Your task to perform on an android device: Clear all items from cart on bestbuy.com. Image 0: 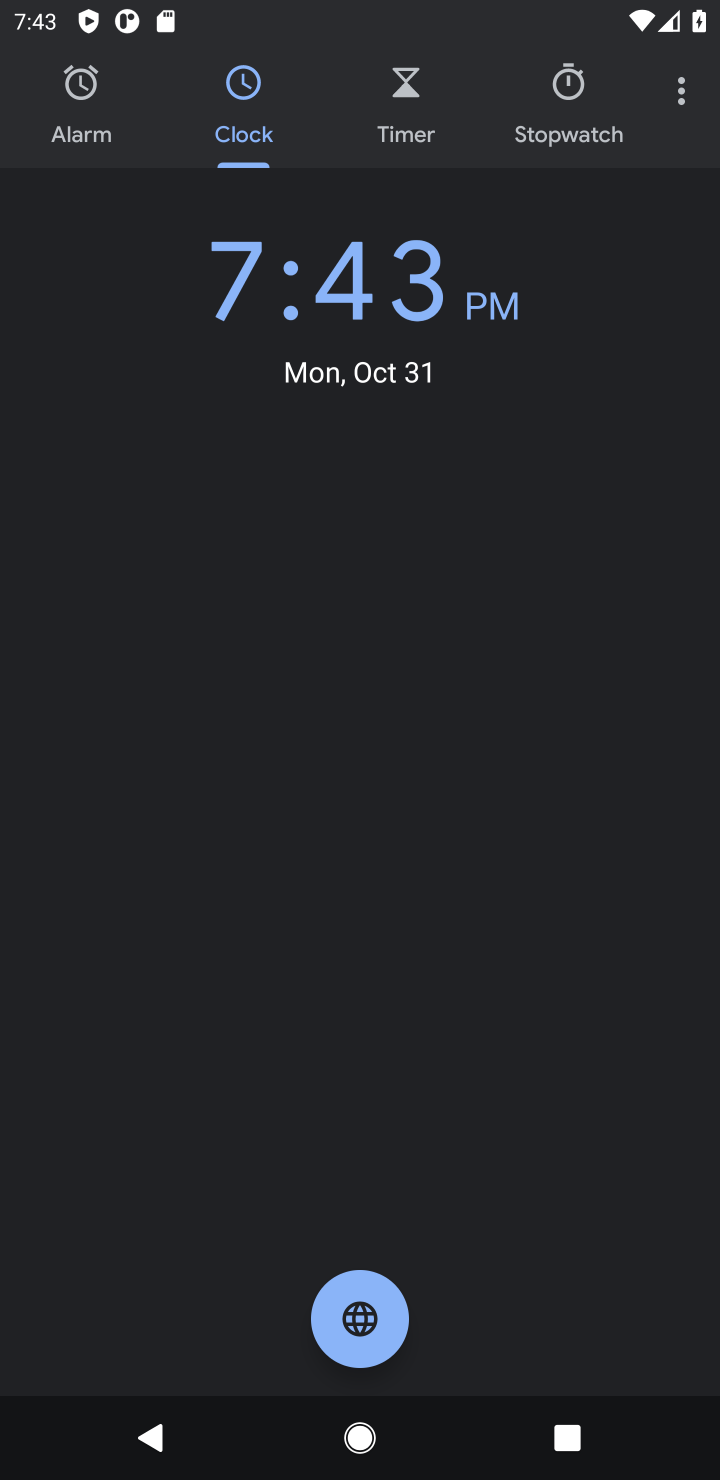
Step 0: press home button
Your task to perform on an android device: Clear all items from cart on bestbuy.com. Image 1: 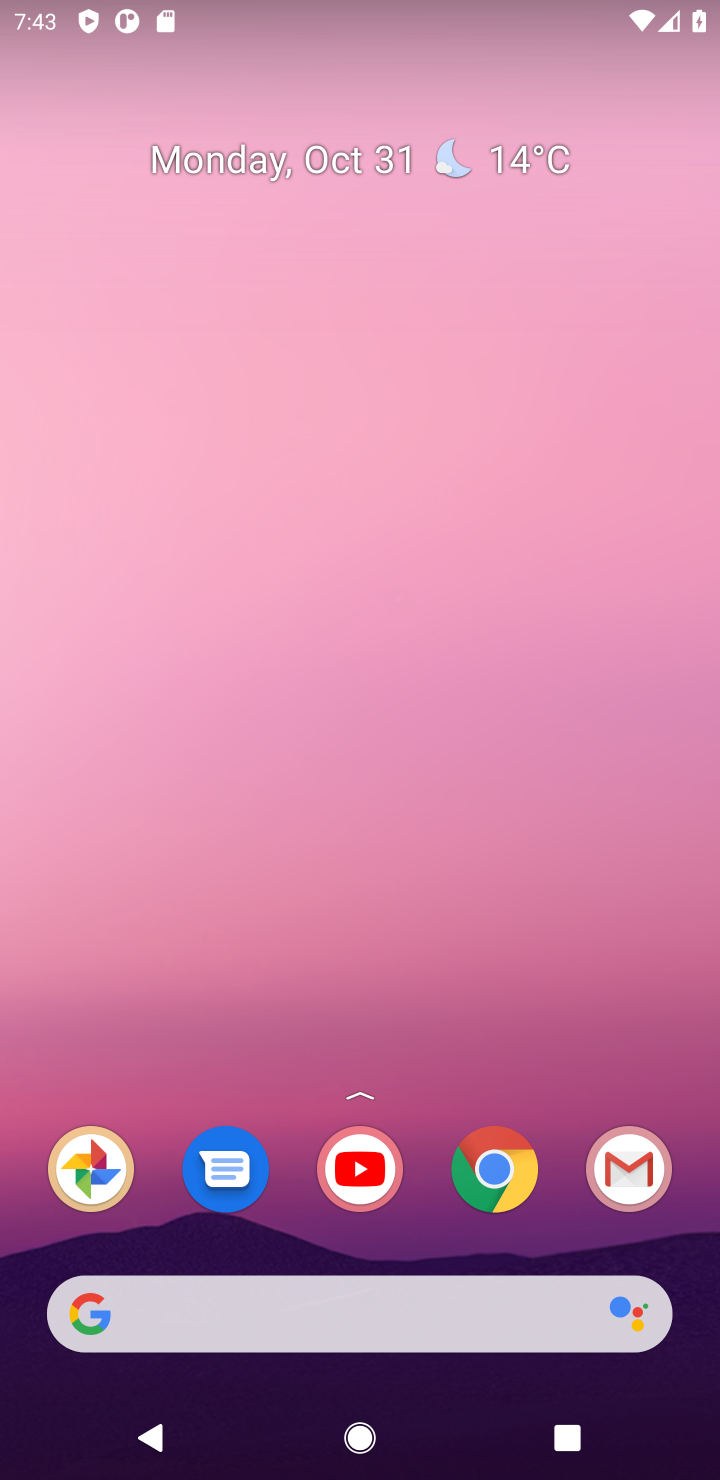
Step 1: drag from (423, 701) to (398, 90)
Your task to perform on an android device: Clear all items from cart on bestbuy.com. Image 2: 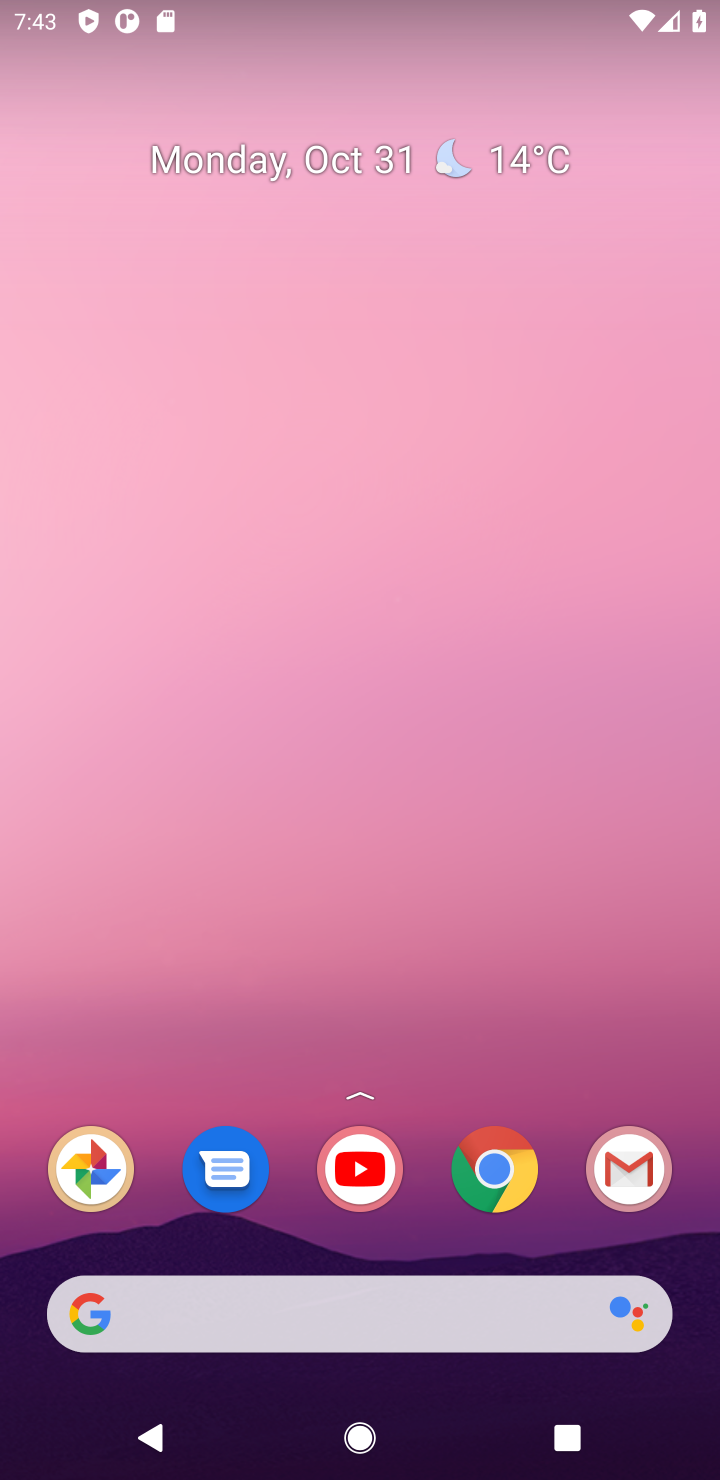
Step 2: drag from (460, 1300) to (375, 47)
Your task to perform on an android device: Clear all items from cart on bestbuy.com. Image 3: 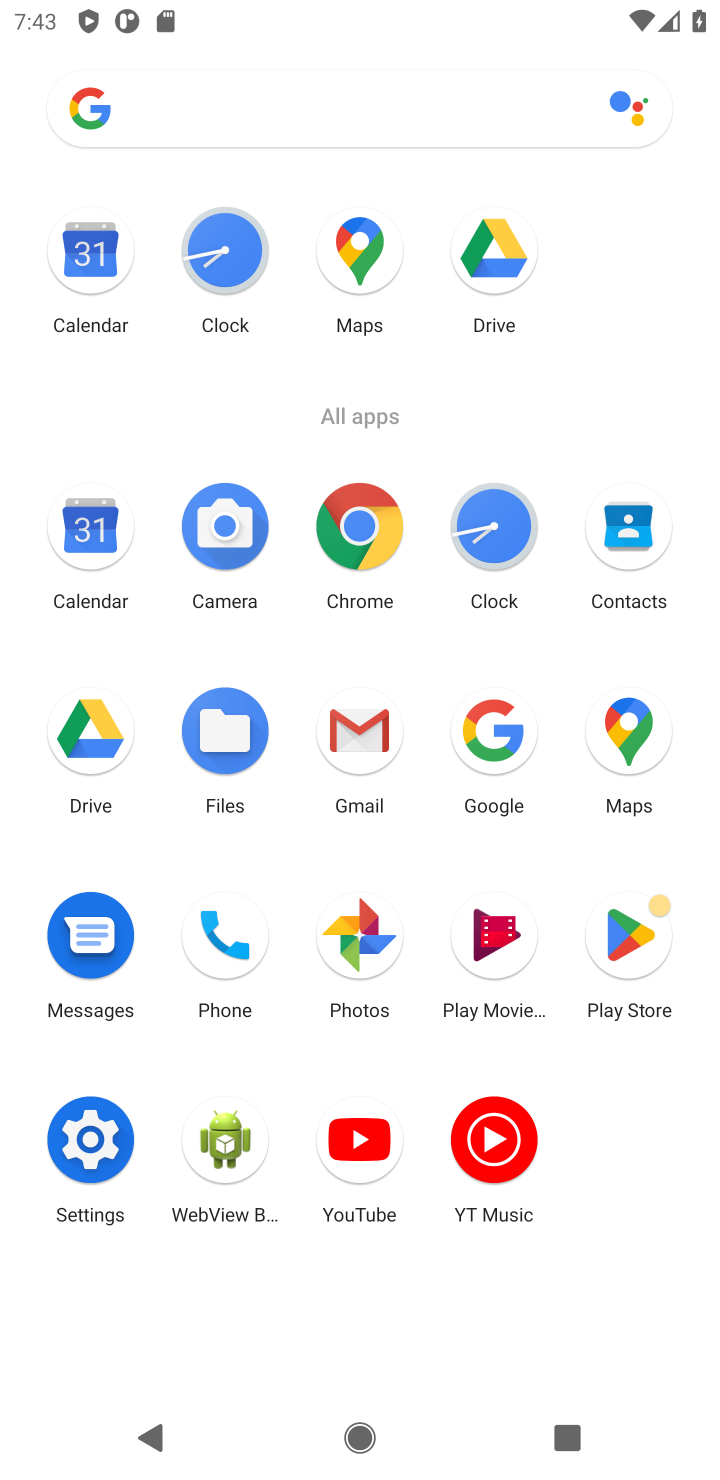
Step 3: click (481, 724)
Your task to perform on an android device: Clear all items from cart on bestbuy.com. Image 4: 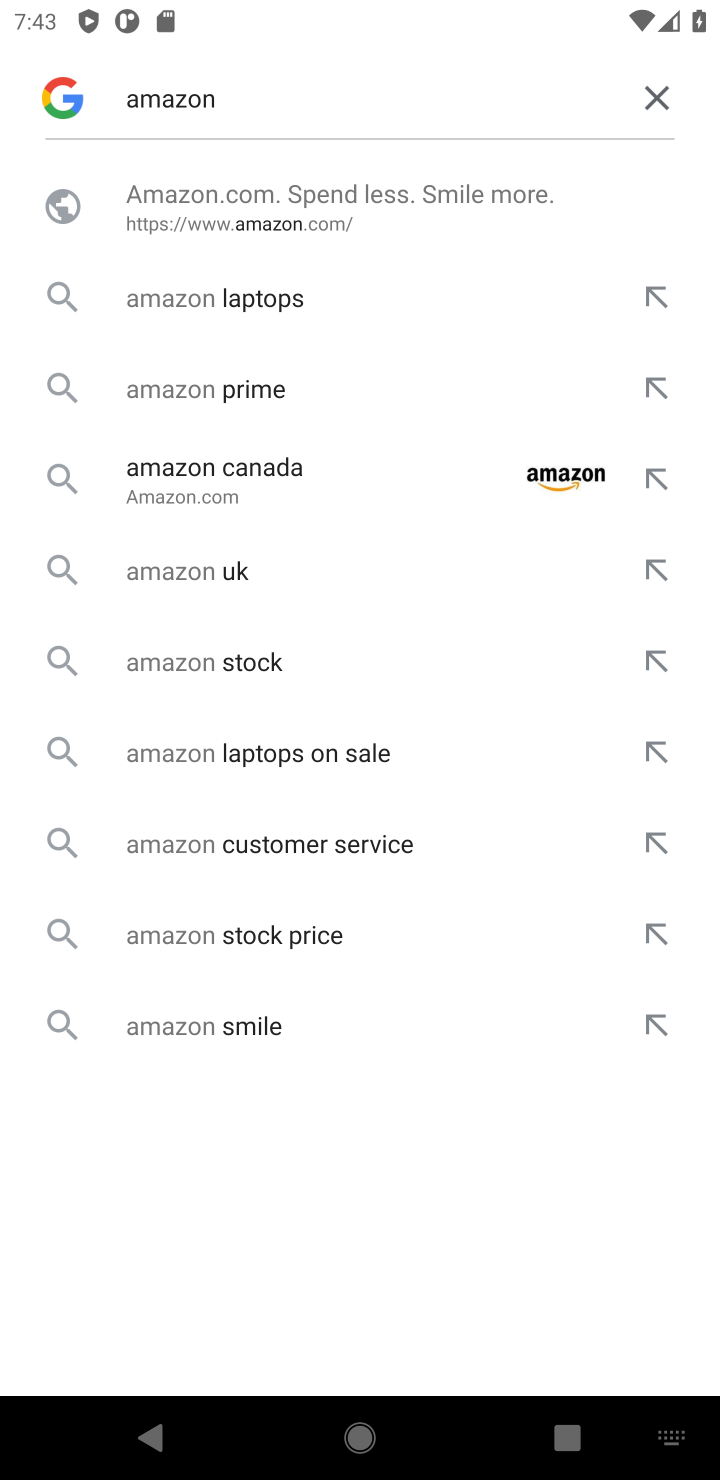
Step 4: click (638, 91)
Your task to perform on an android device: Clear all items from cart on bestbuy.com. Image 5: 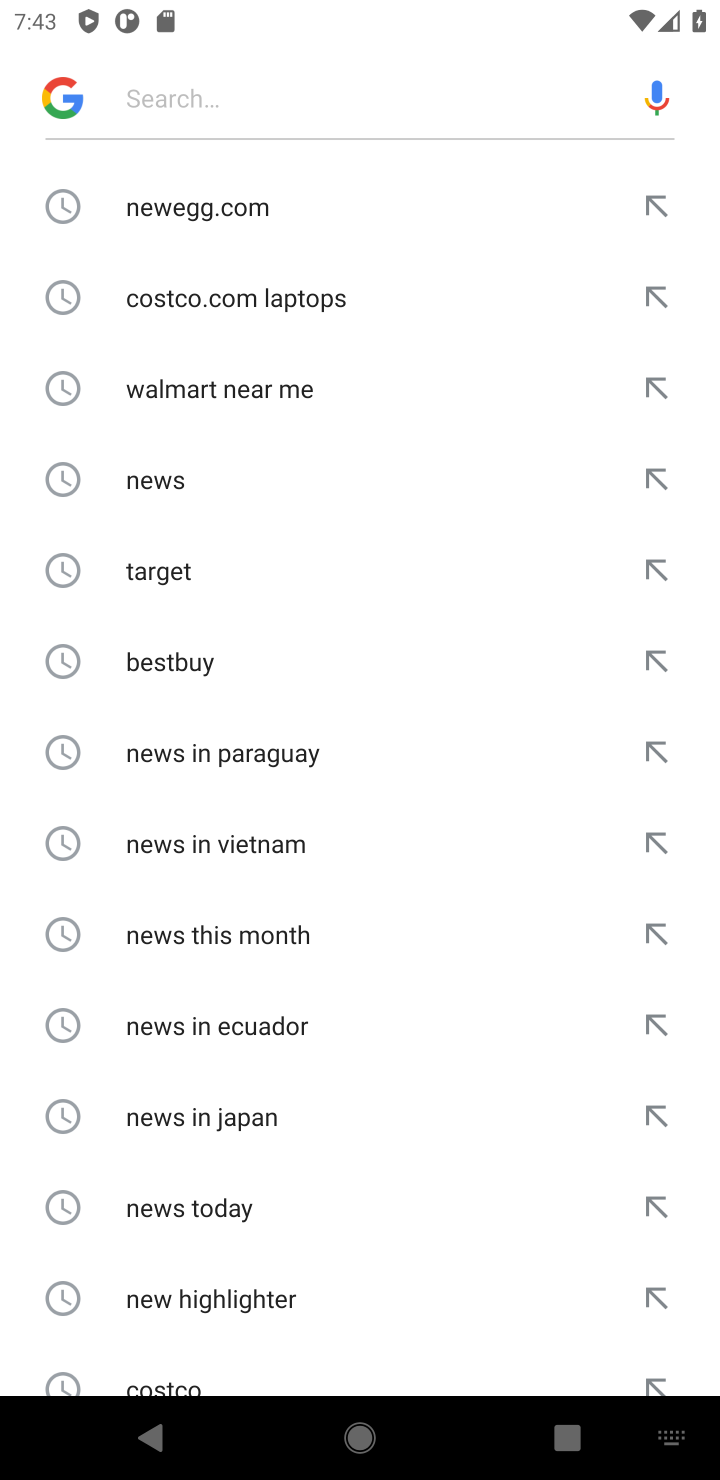
Step 5: click (293, 91)
Your task to perform on an android device: Clear all items from cart on bestbuy.com. Image 6: 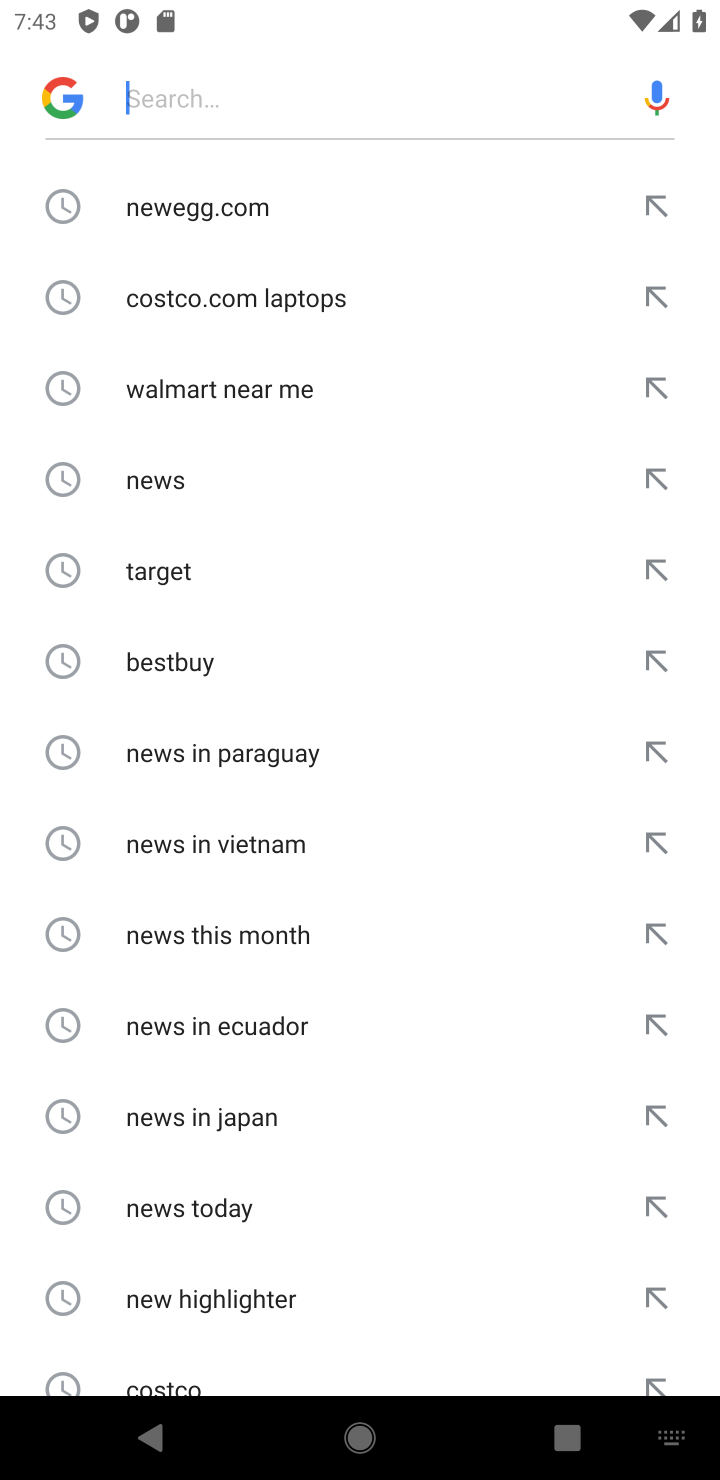
Step 6: type "bestbuy "
Your task to perform on an android device: Clear all items from cart on bestbuy.com. Image 7: 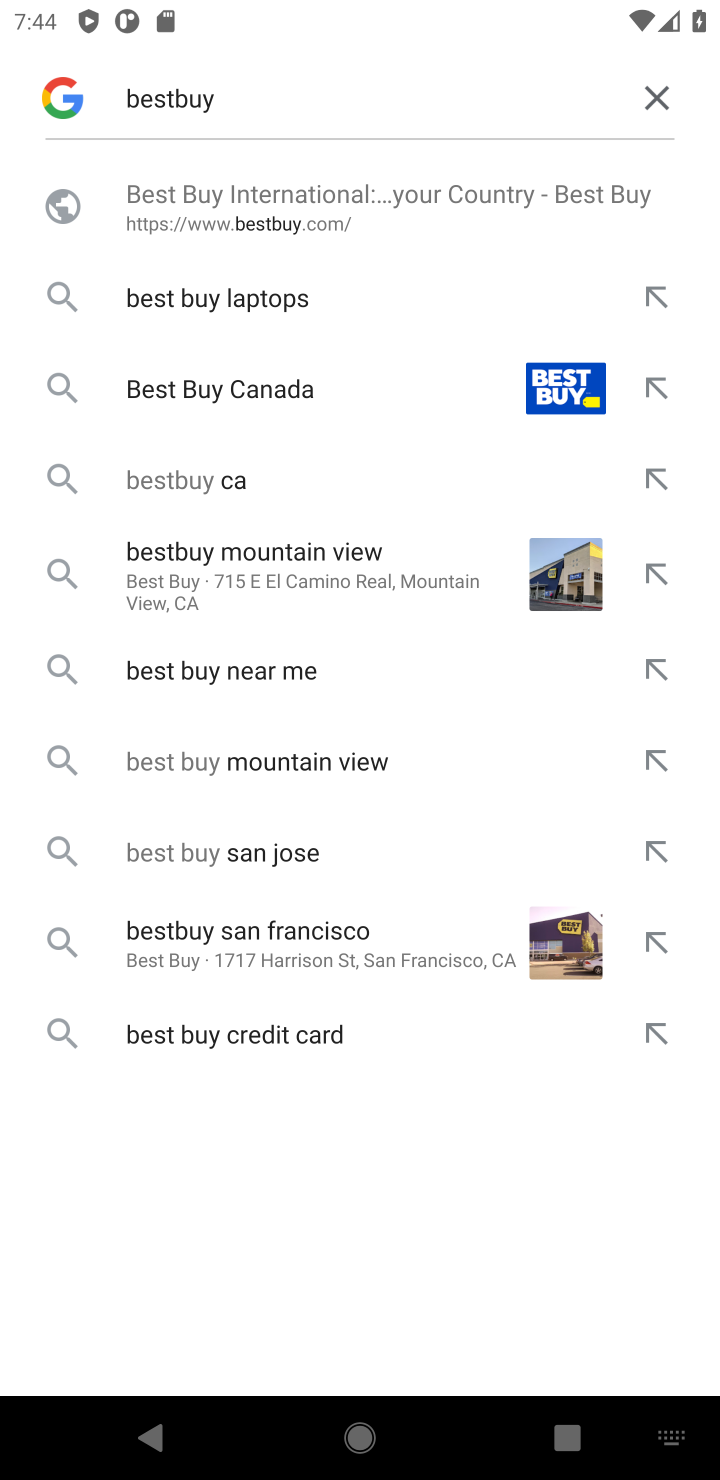
Step 7: click (361, 232)
Your task to perform on an android device: Clear all items from cart on bestbuy.com. Image 8: 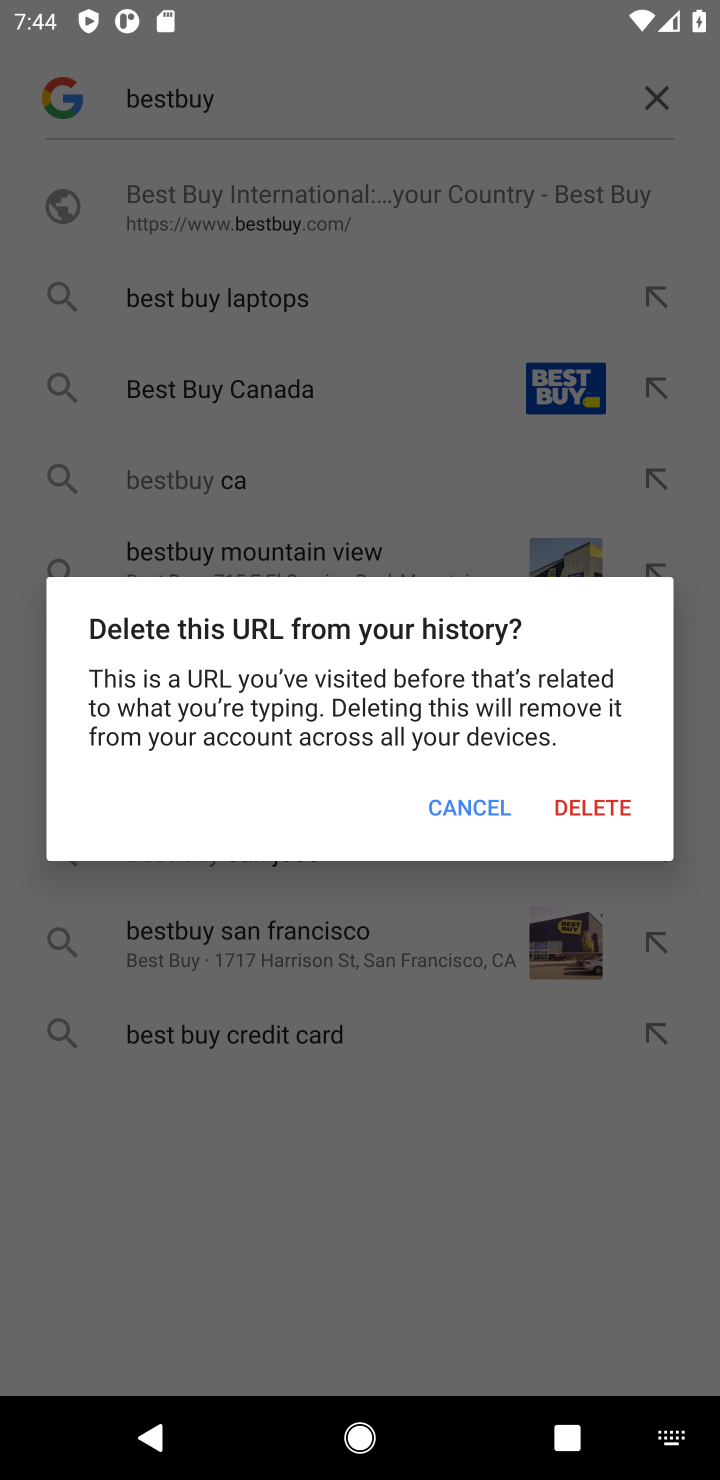
Step 8: click (484, 814)
Your task to perform on an android device: Clear all items from cart on bestbuy.com. Image 9: 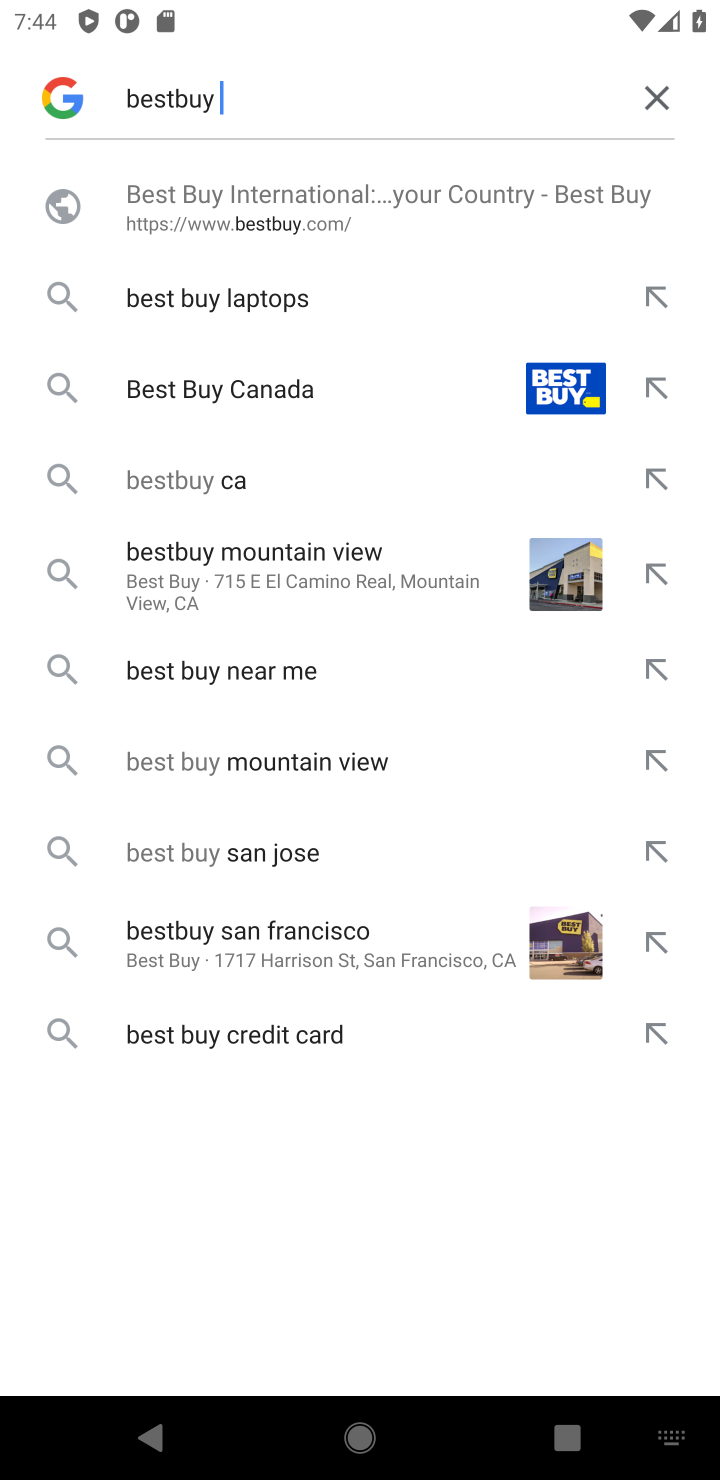
Step 9: click (228, 292)
Your task to perform on an android device: Clear all items from cart on bestbuy.com. Image 10: 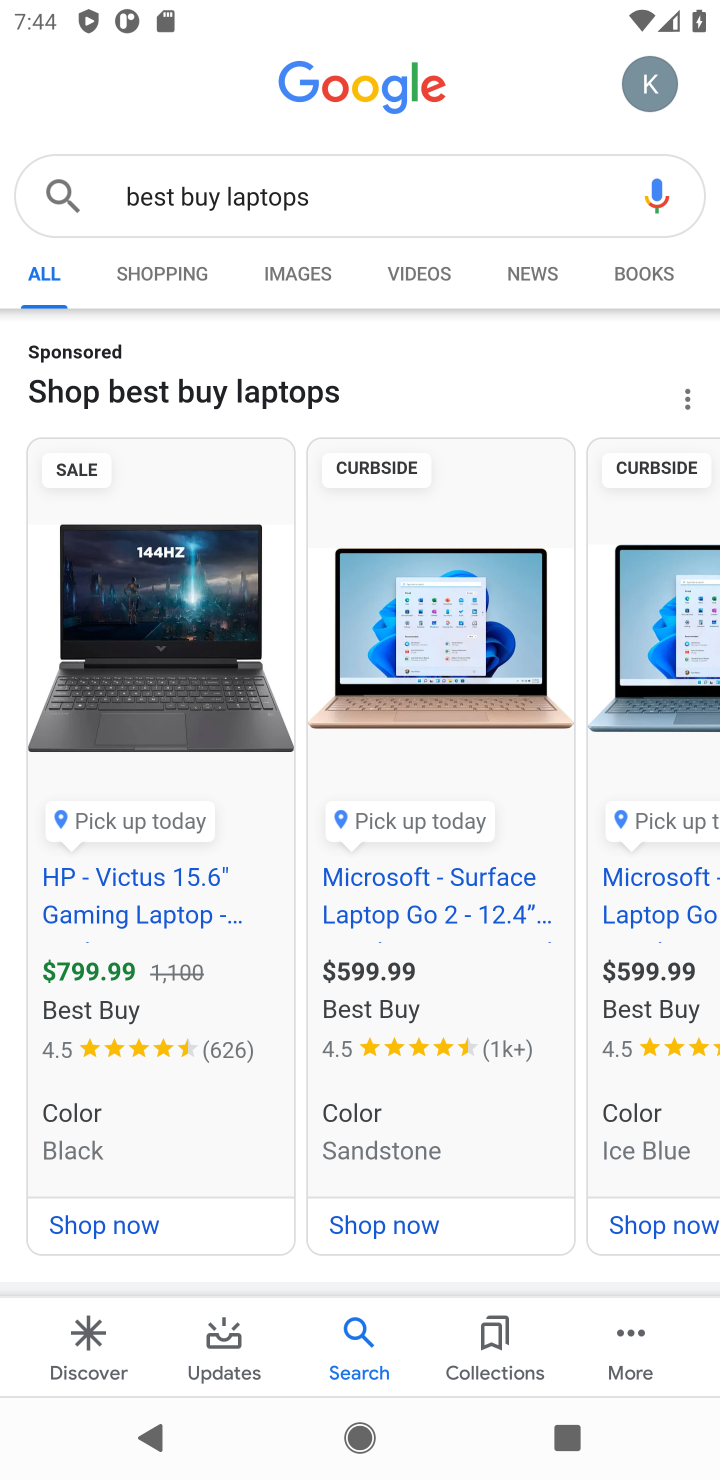
Step 10: drag from (380, 1081) to (379, 440)
Your task to perform on an android device: Clear all items from cart on bestbuy.com. Image 11: 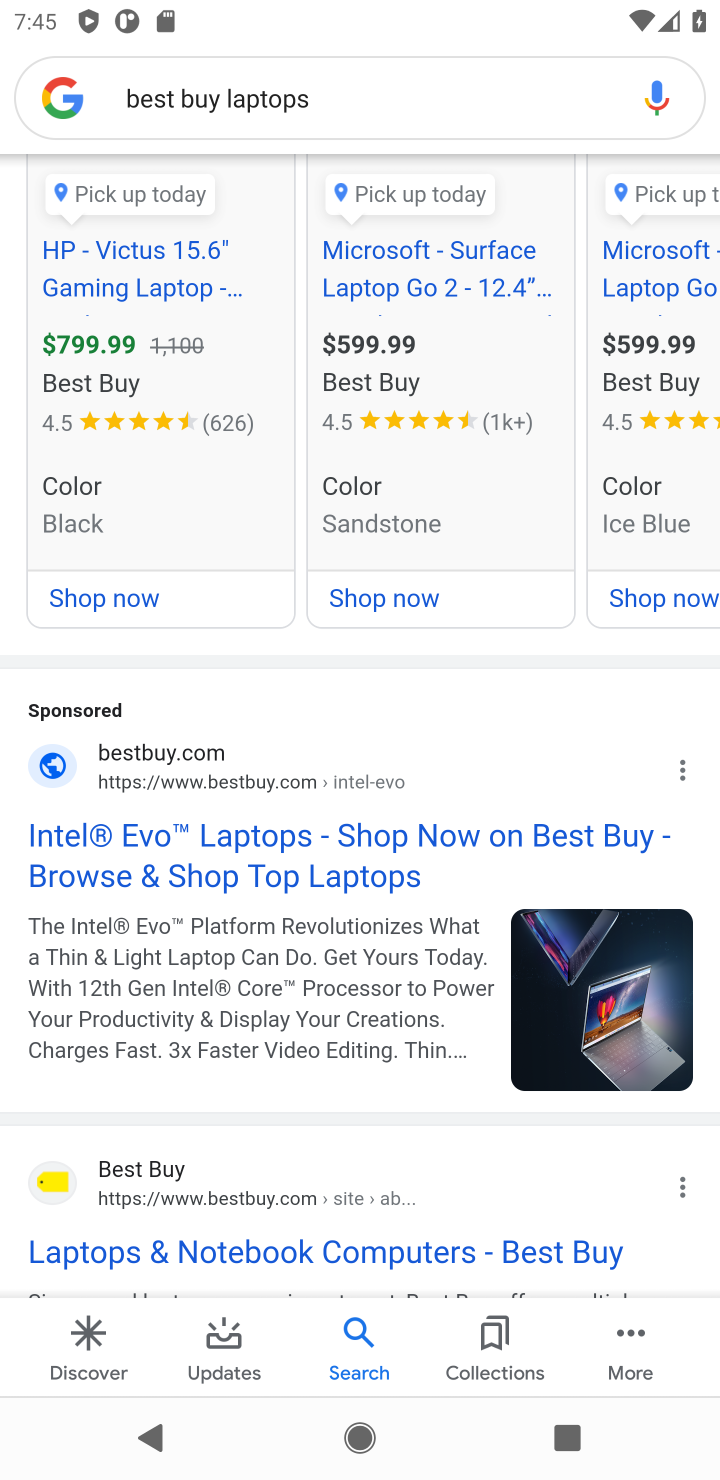
Step 11: click (59, 1170)
Your task to perform on an android device: Clear all items from cart on bestbuy.com. Image 12: 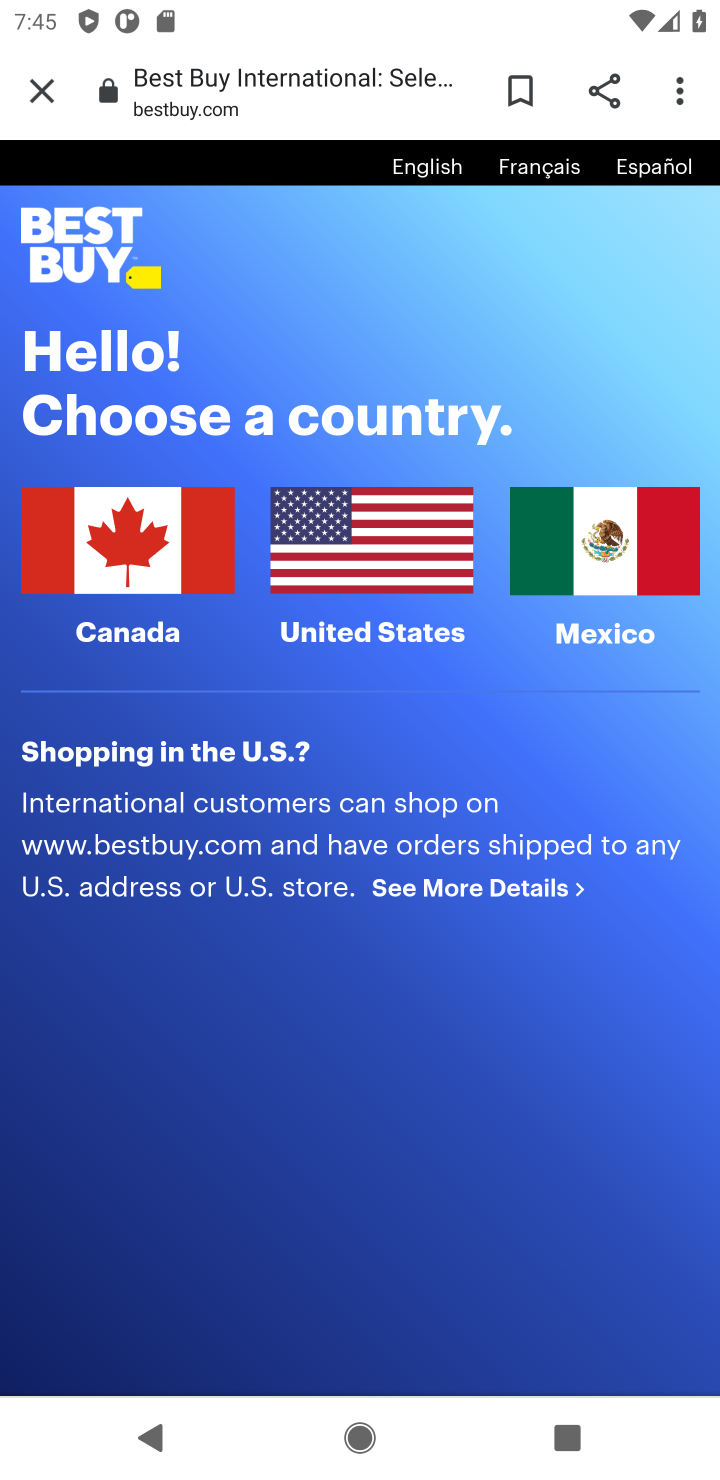
Step 12: click (321, 476)
Your task to perform on an android device: Clear all items from cart on bestbuy.com. Image 13: 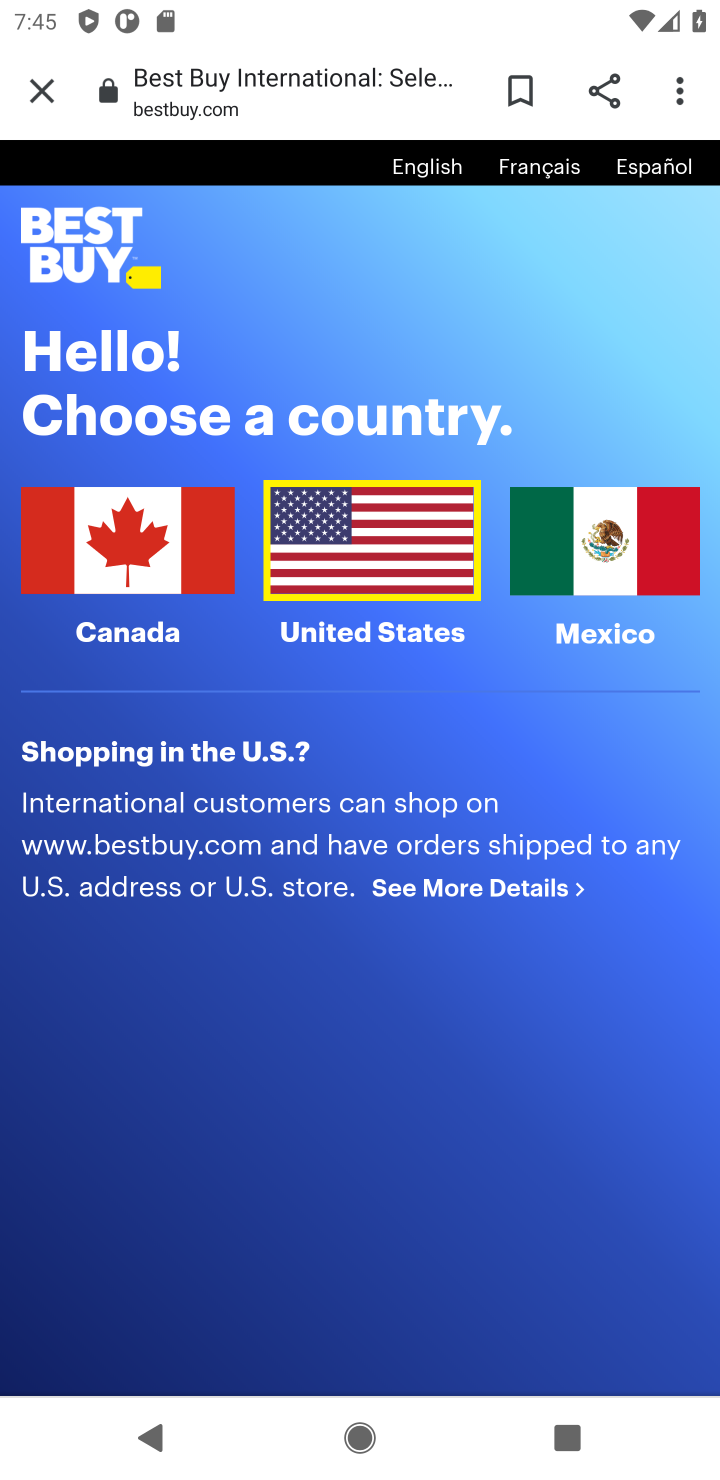
Step 13: click (360, 526)
Your task to perform on an android device: Clear all items from cart on bestbuy.com. Image 14: 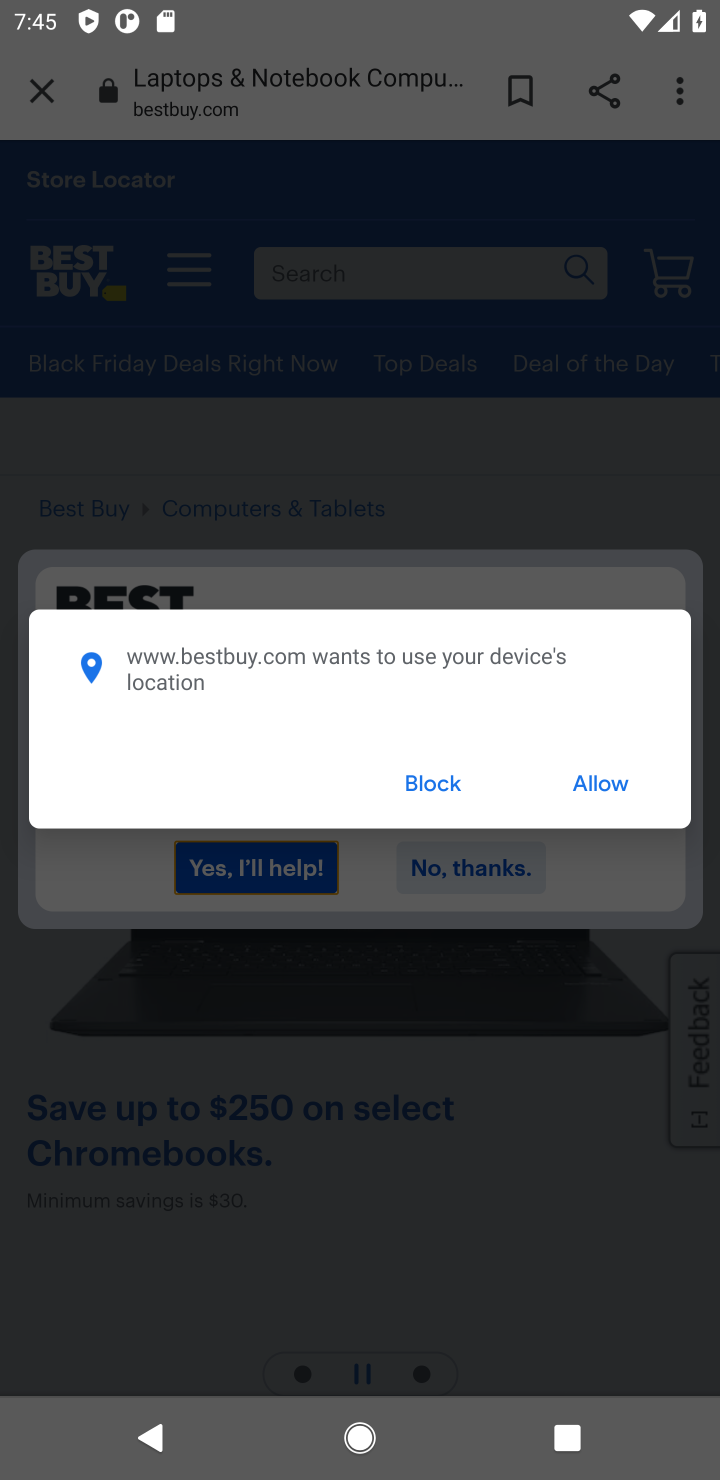
Step 14: click (584, 782)
Your task to perform on an android device: Clear all items from cart on bestbuy.com. Image 15: 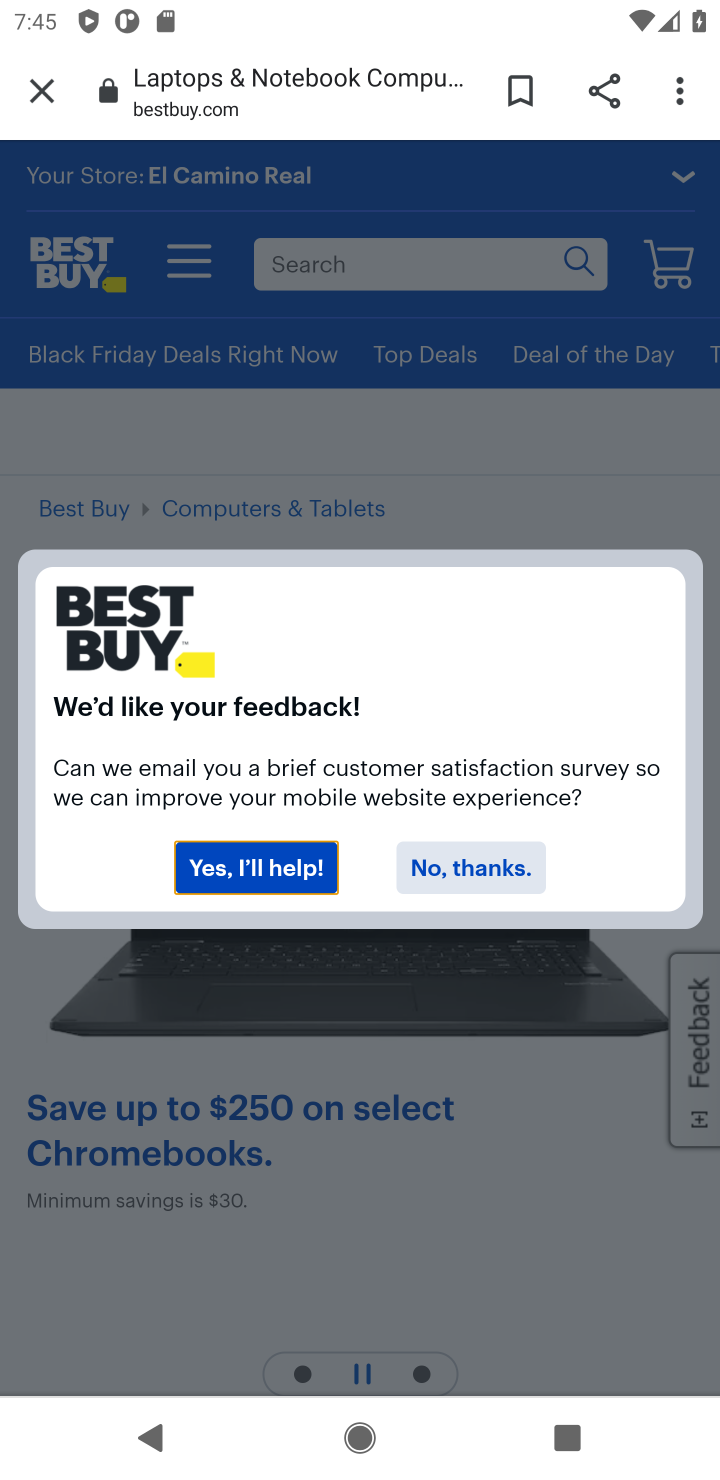
Step 15: click (435, 870)
Your task to perform on an android device: Clear all items from cart on bestbuy.com. Image 16: 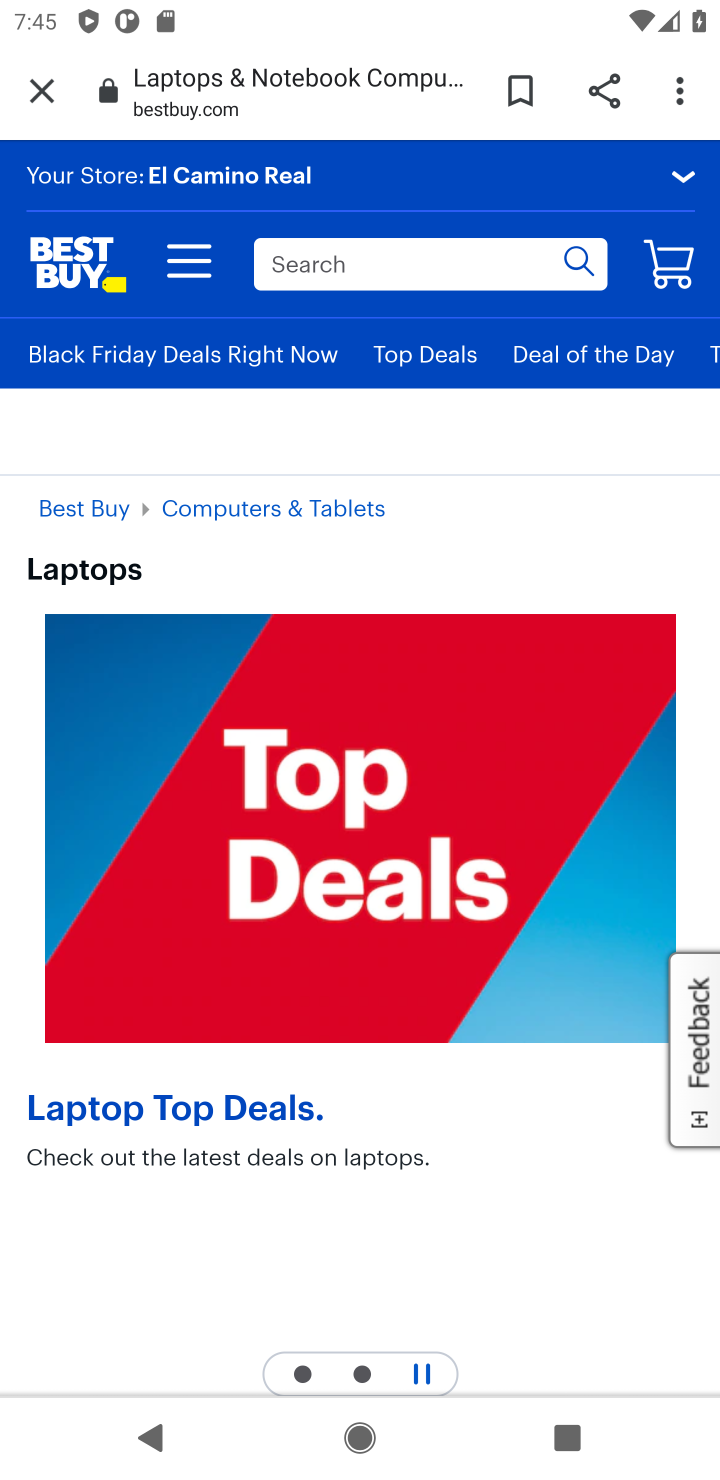
Step 16: click (664, 289)
Your task to perform on an android device: Clear all items from cart on bestbuy.com. Image 17: 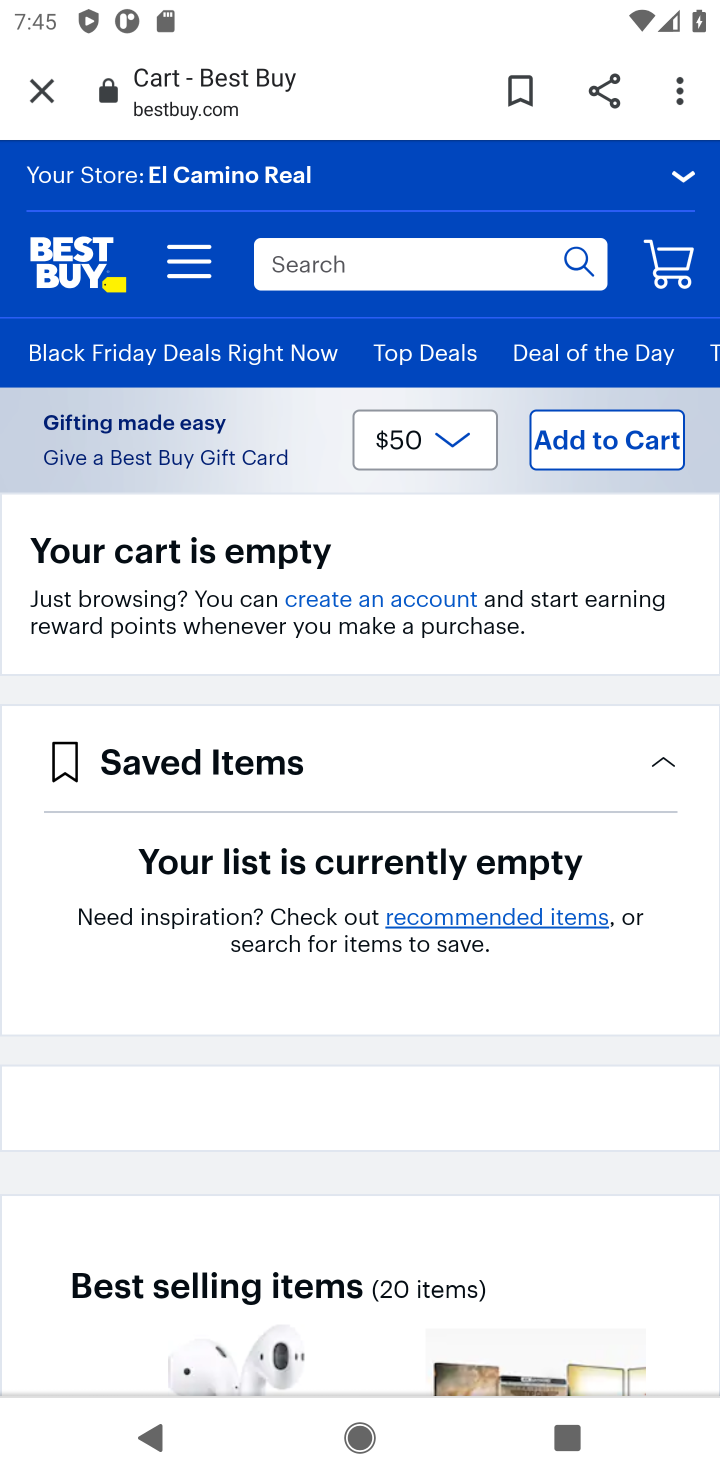
Step 17: task complete